Your task to perform on an android device: Open Google Image 0: 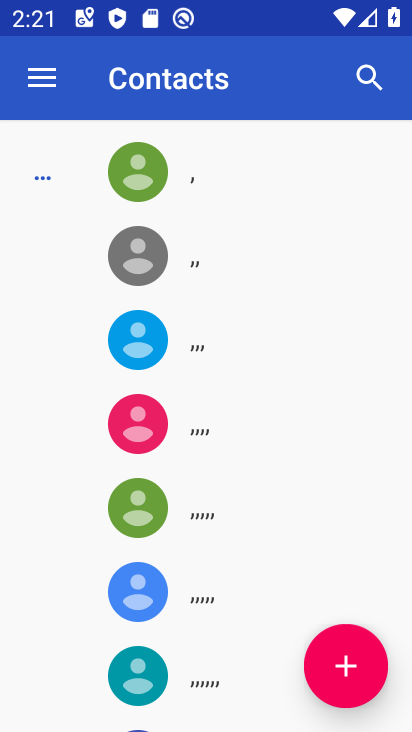
Step 0: press home button
Your task to perform on an android device: Open Google Image 1: 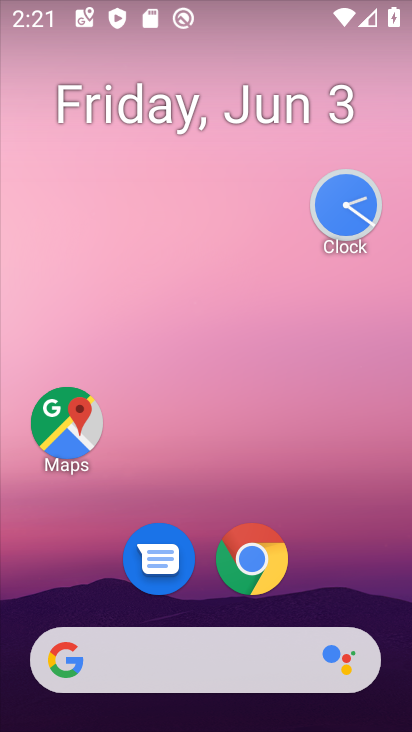
Step 1: drag from (357, 574) to (363, 206)
Your task to perform on an android device: Open Google Image 2: 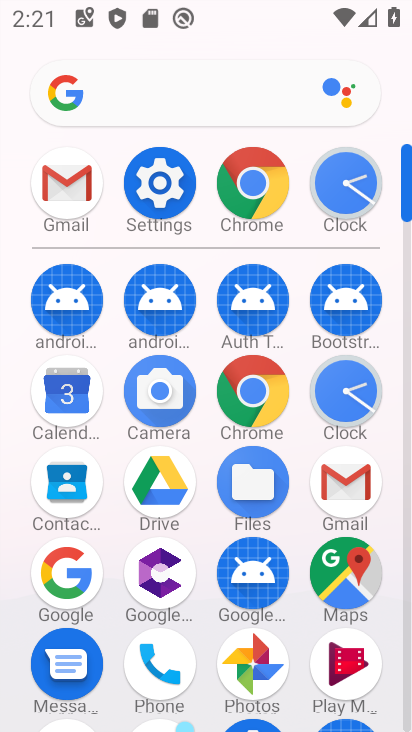
Step 2: click (65, 574)
Your task to perform on an android device: Open Google Image 3: 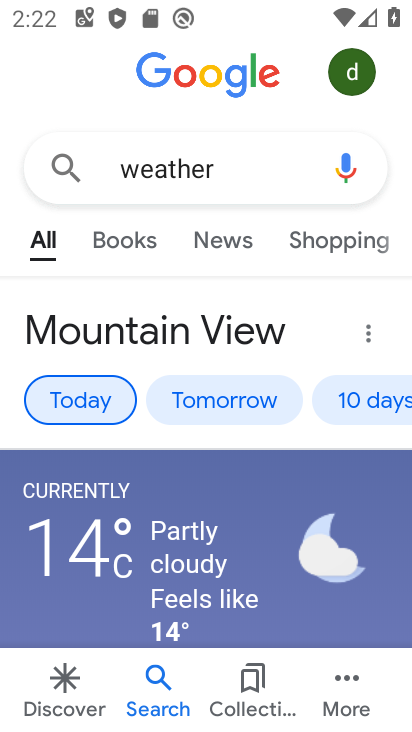
Step 3: task complete